Your task to perform on an android device: Clear all items from cart on amazon. Add "sony triple a" to the cart on amazon, then select checkout. Image 0: 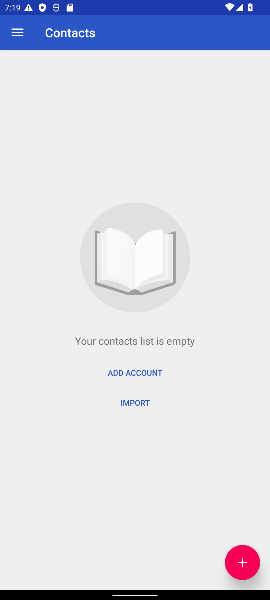
Step 0: press home button
Your task to perform on an android device: Clear all items from cart on amazon. Add "sony triple a" to the cart on amazon, then select checkout. Image 1: 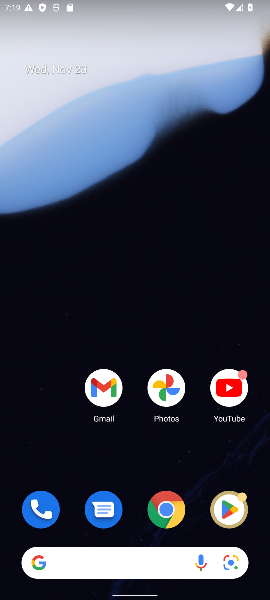
Step 1: click (171, 512)
Your task to perform on an android device: Clear all items from cart on amazon. Add "sony triple a" to the cart on amazon, then select checkout. Image 2: 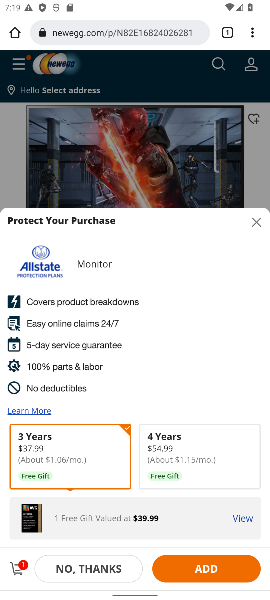
Step 2: click (148, 33)
Your task to perform on an android device: Clear all items from cart on amazon. Add "sony triple a" to the cart on amazon, then select checkout. Image 3: 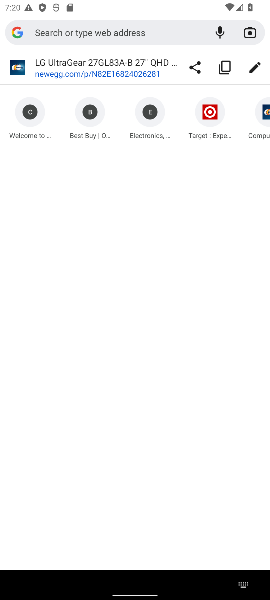
Step 3: type "amazon"
Your task to perform on an android device: Clear all items from cart on amazon. Add "sony triple a" to the cart on amazon, then select checkout. Image 4: 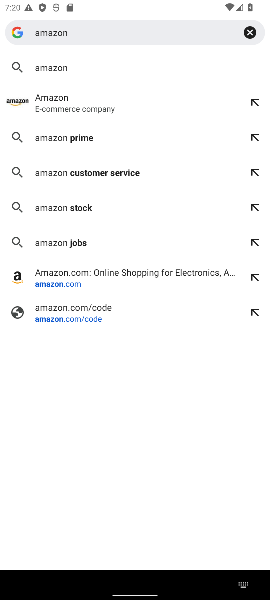
Step 4: click (121, 276)
Your task to perform on an android device: Clear all items from cart on amazon. Add "sony triple a" to the cart on amazon, then select checkout. Image 5: 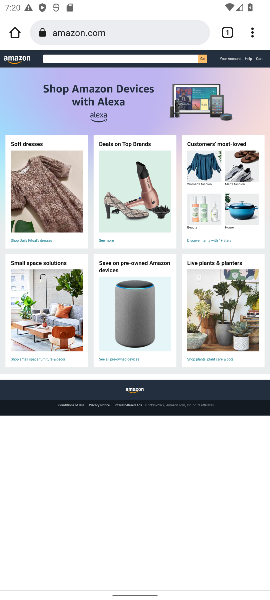
Step 5: click (260, 59)
Your task to perform on an android device: Clear all items from cart on amazon. Add "sony triple a" to the cart on amazon, then select checkout. Image 6: 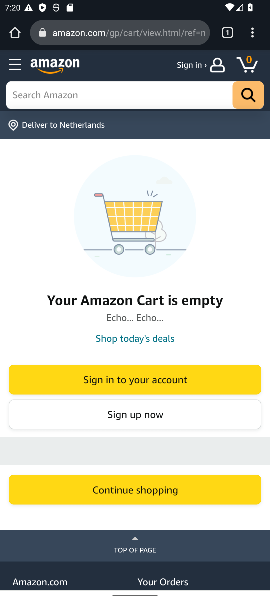
Step 6: click (90, 97)
Your task to perform on an android device: Clear all items from cart on amazon. Add "sony triple a" to the cart on amazon, then select checkout. Image 7: 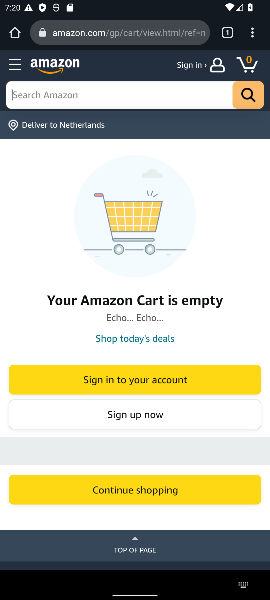
Step 7: type "sony aaa"
Your task to perform on an android device: Clear all items from cart on amazon. Add "sony triple a" to the cart on amazon, then select checkout. Image 8: 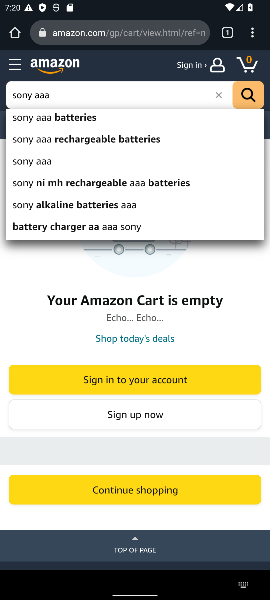
Step 8: press enter
Your task to perform on an android device: Clear all items from cart on amazon. Add "sony triple a" to the cart on amazon, then select checkout. Image 9: 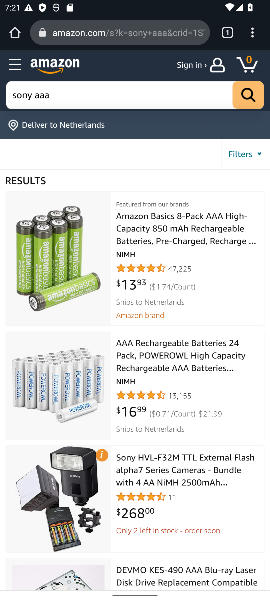
Step 9: task complete